Your task to perform on an android device: open app "Roku - Official Remote Control" Image 0: 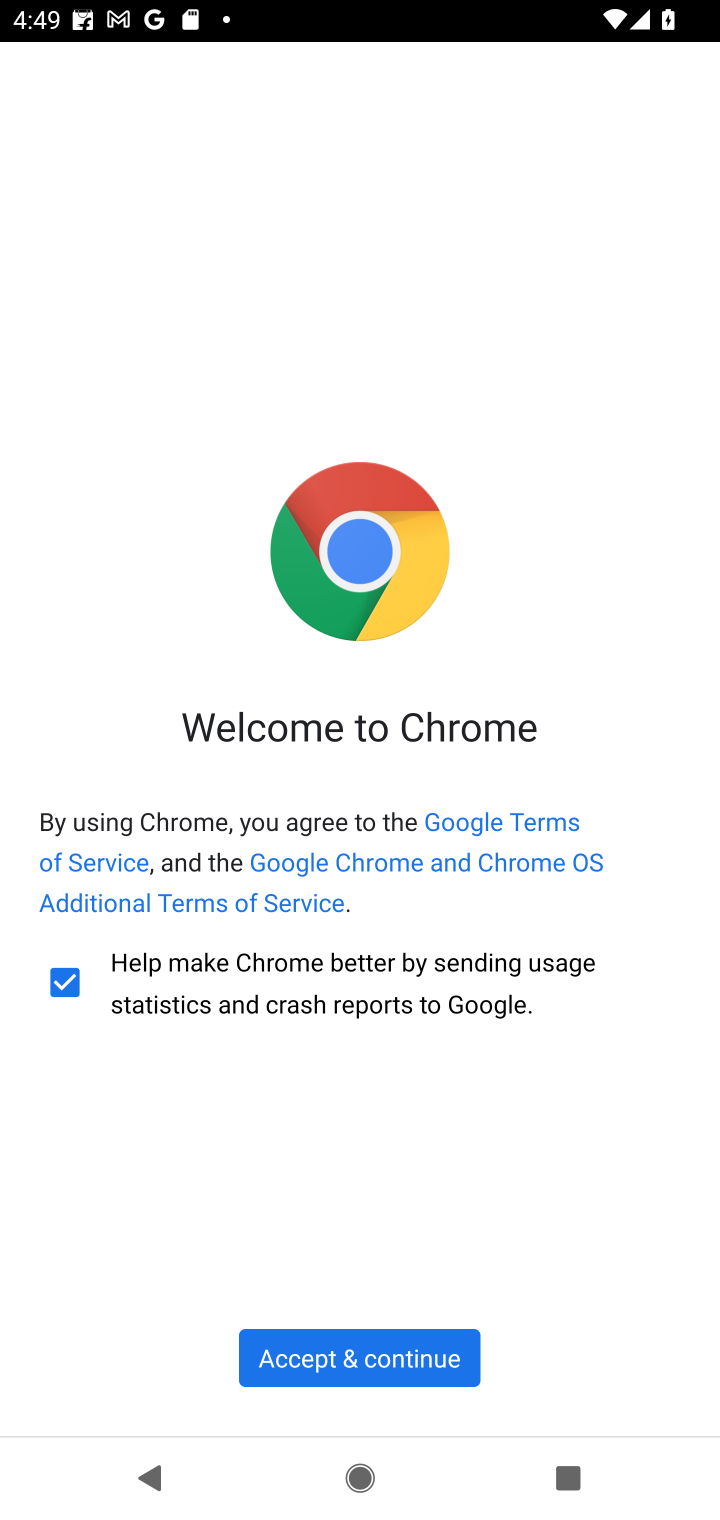
Step 0: press home button
Your task to perform on an android device: open app "Roku - Official Remote Control" Image 1: 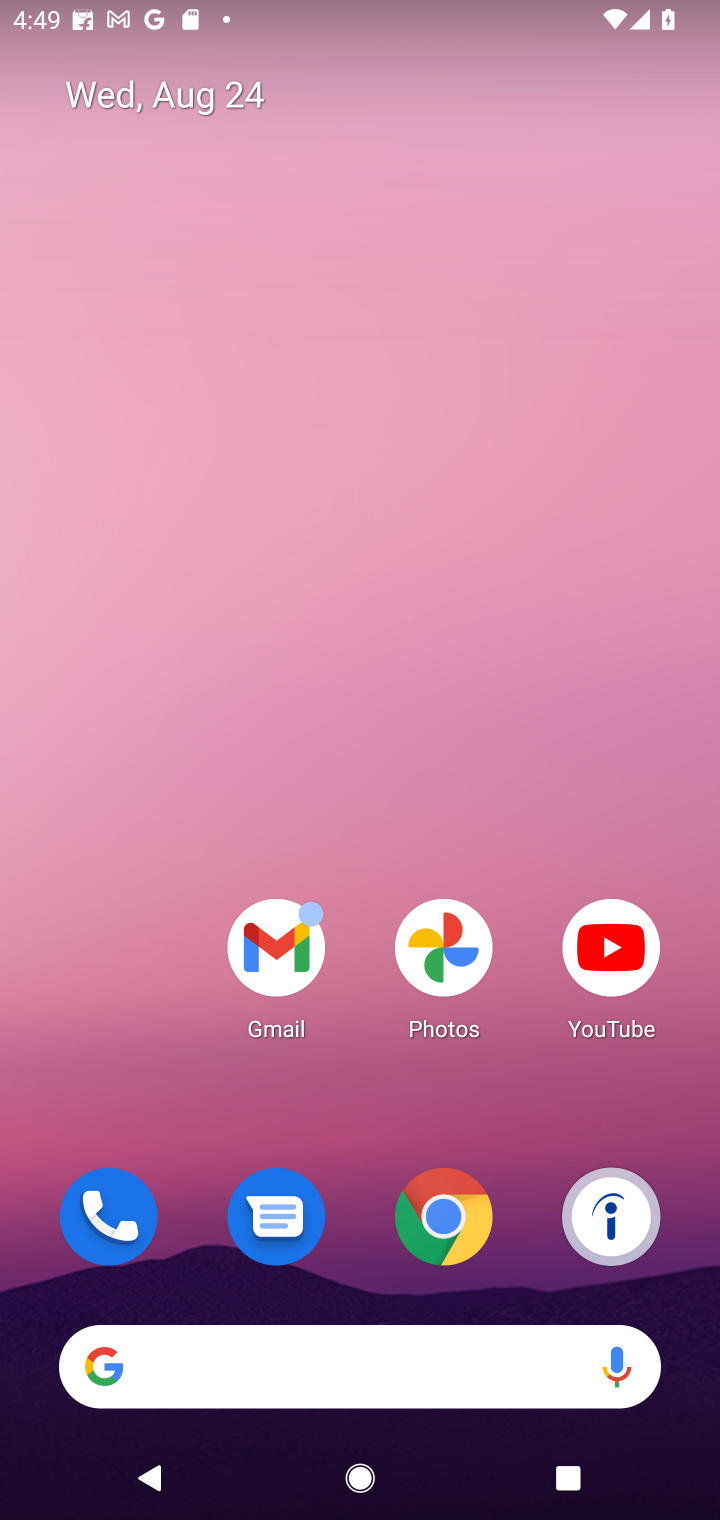
Step 1: drag from (341, 673) to (341, 108)
Your task to perform on an android device: open app "Roku - Official Remote Control" Image 2: 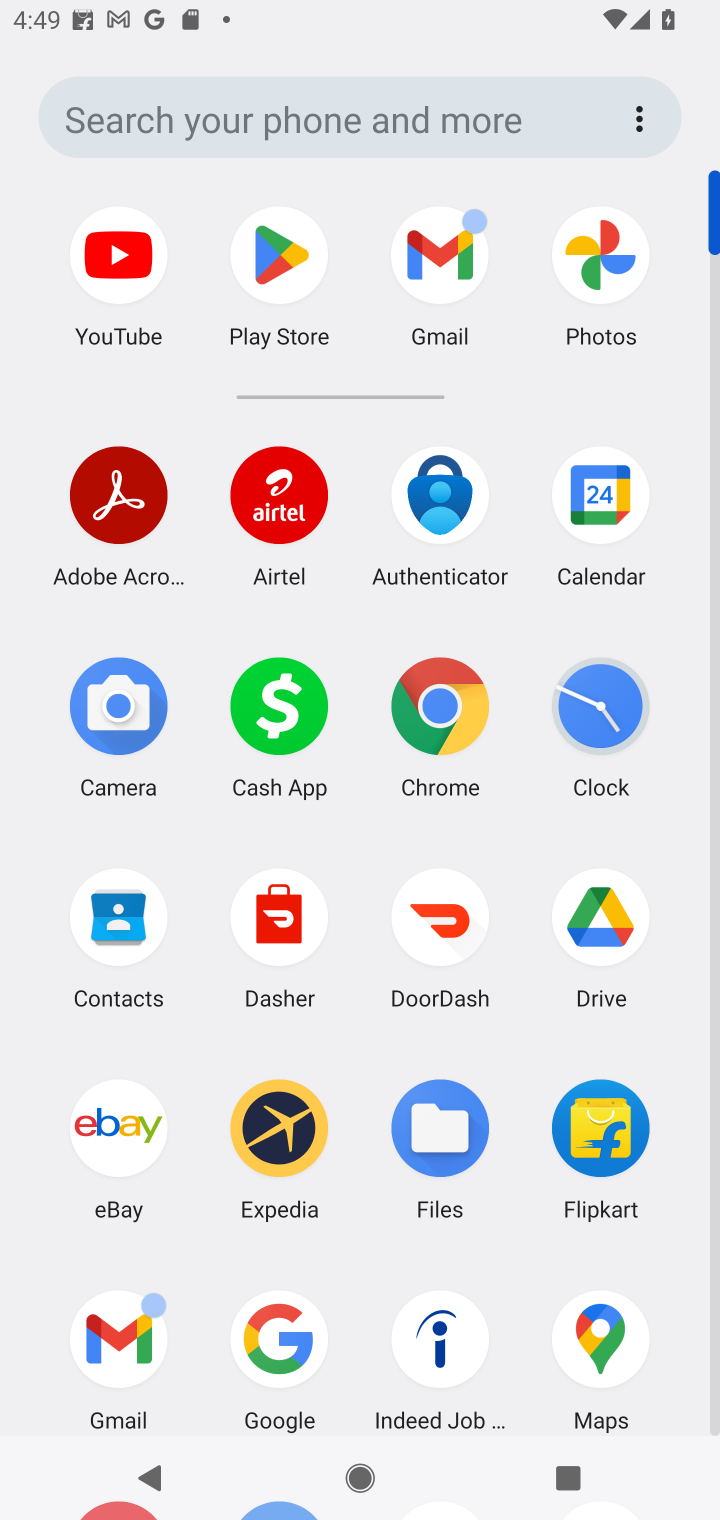
Step 2: click (268, 248)
Your task to perform on an android device: open app "Roku - Official Remote Control" Image 3: 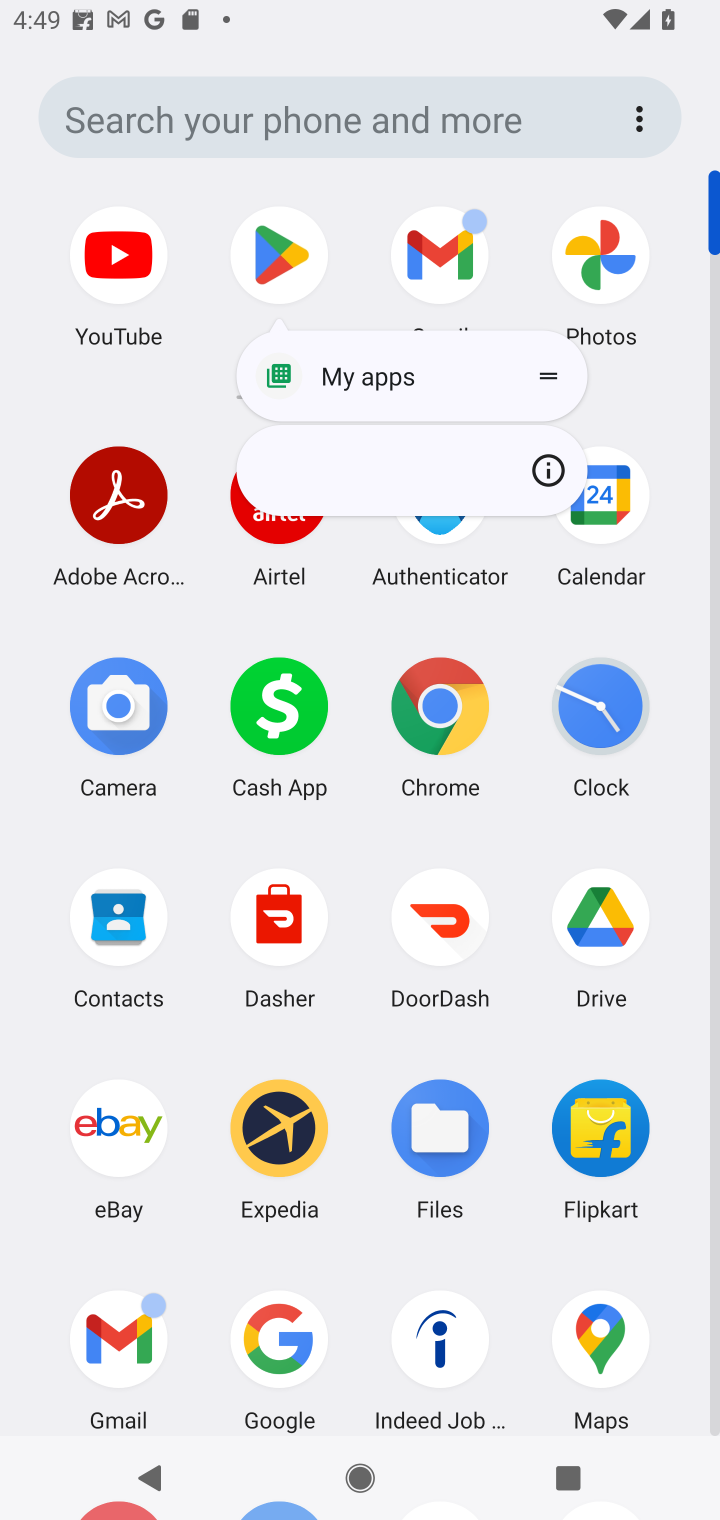
Step 3: click (284, 269)
Your task to perform on an android device: open app "Roku - Official Remote Control" Image 4: 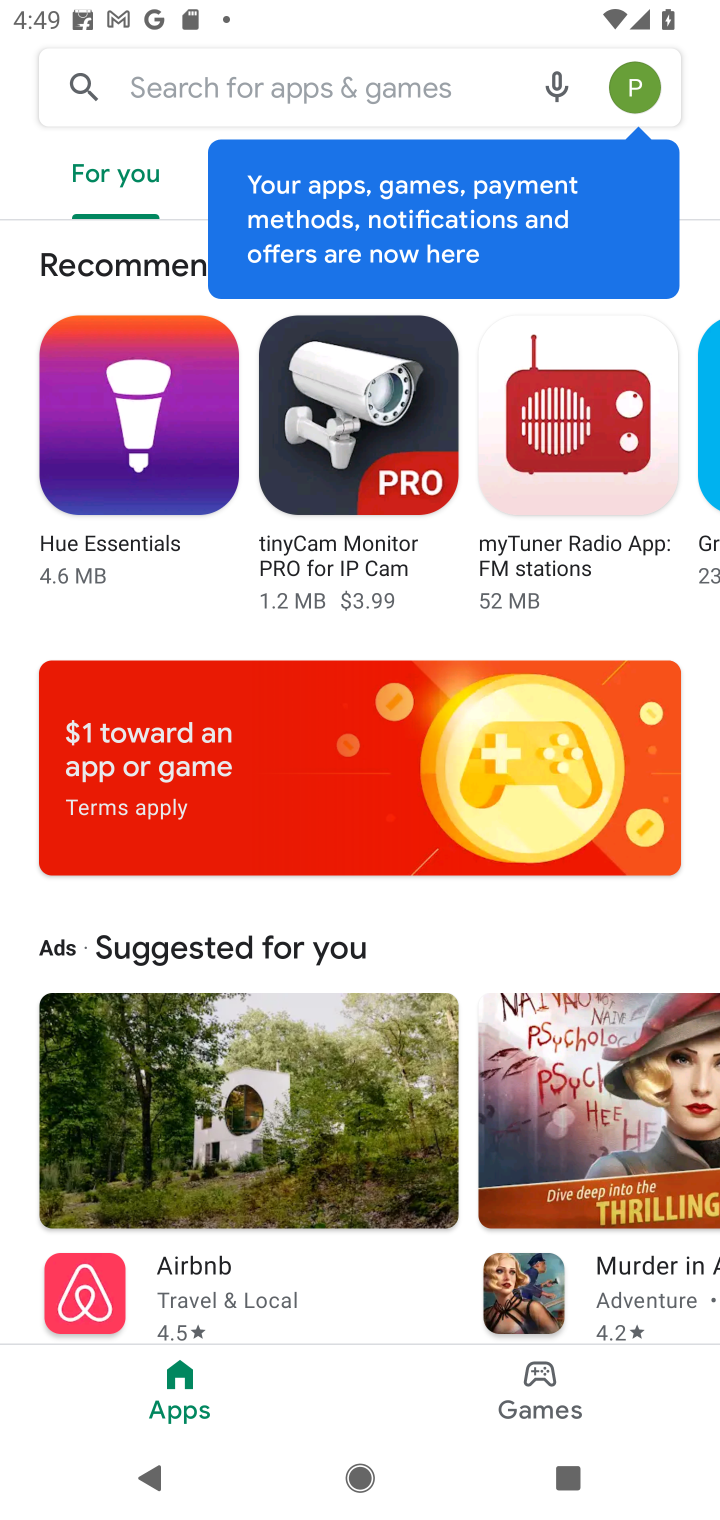
Step 4: click (350, 91)
Your task to perform on an android device: open app "Roku - Official Remote Control" Image 5: 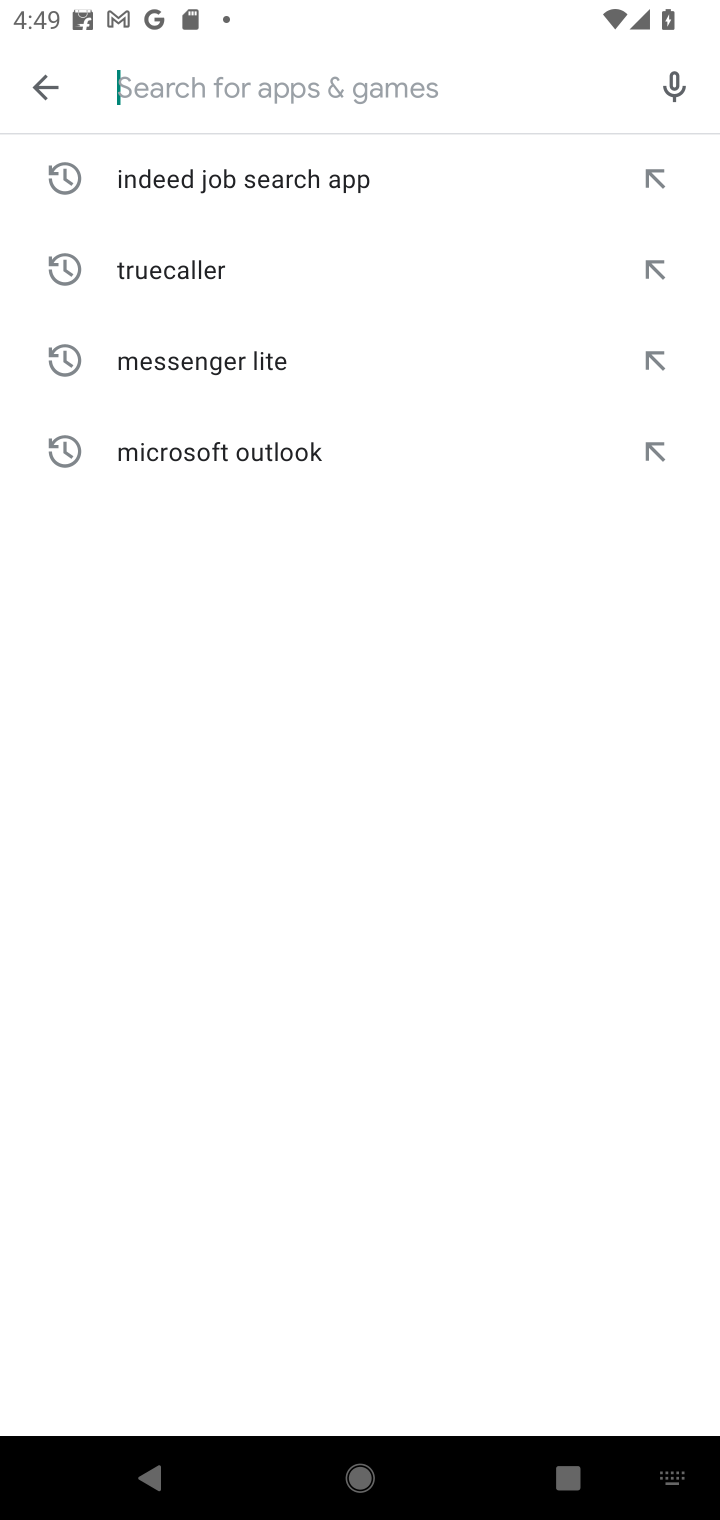
Step 5: type "Roku - Official Remote Control"
Your task to perform on an android device: open app "Roku - Official Remote Control" Image 6: 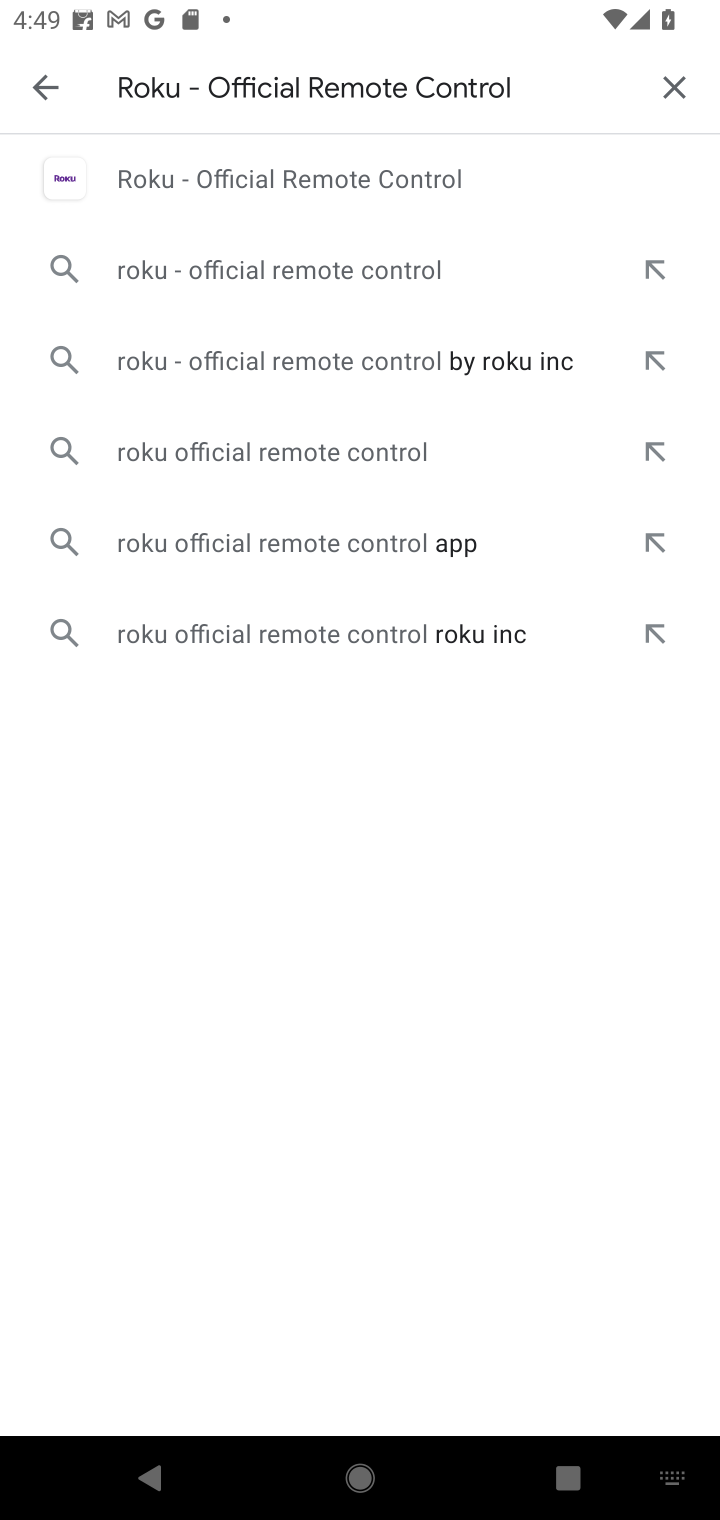
Step 6: click (266, 184)
Your task to perform on an android device: open app "Roku - Official Remote Control" Image 7: 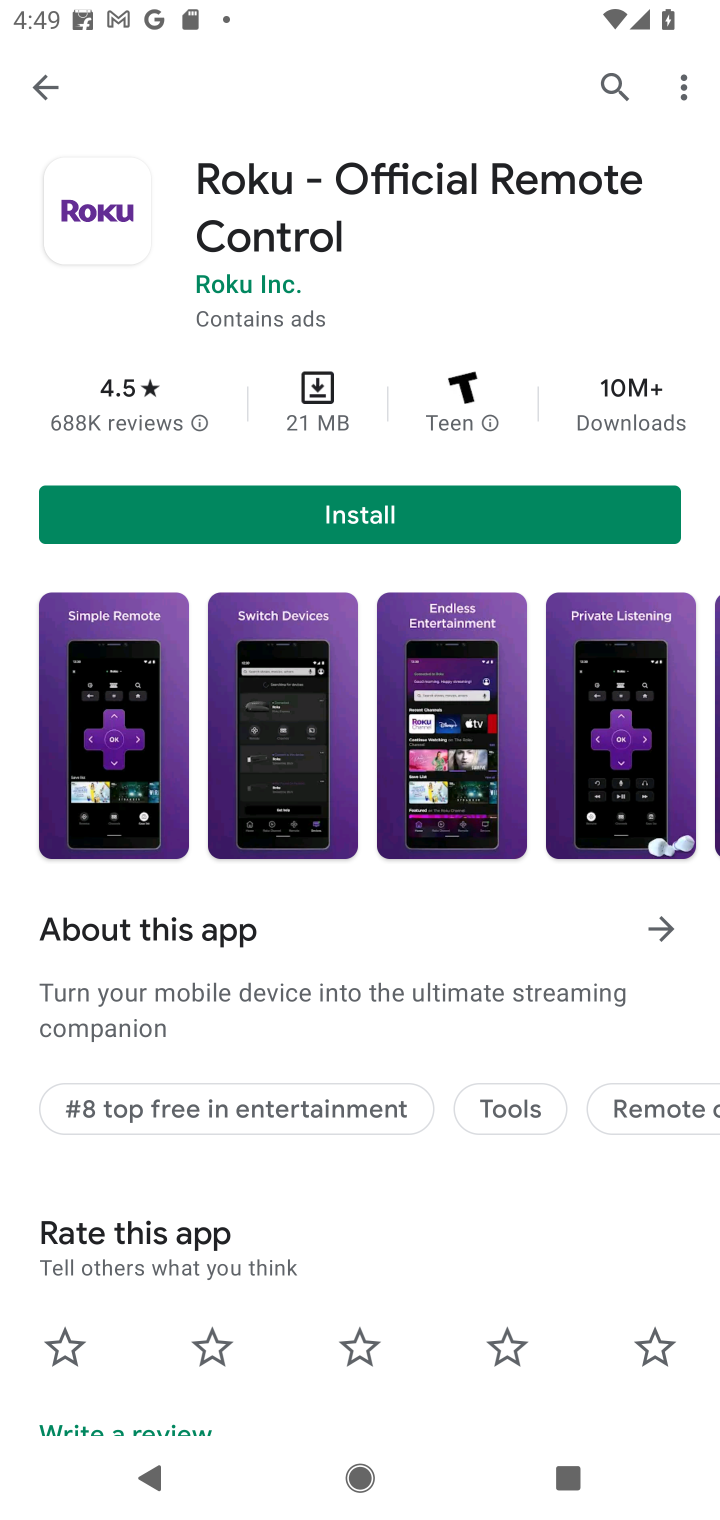
Step 7: task complete